Your task to perform on an android device: toggle show notifications on the lock screen Image 0: 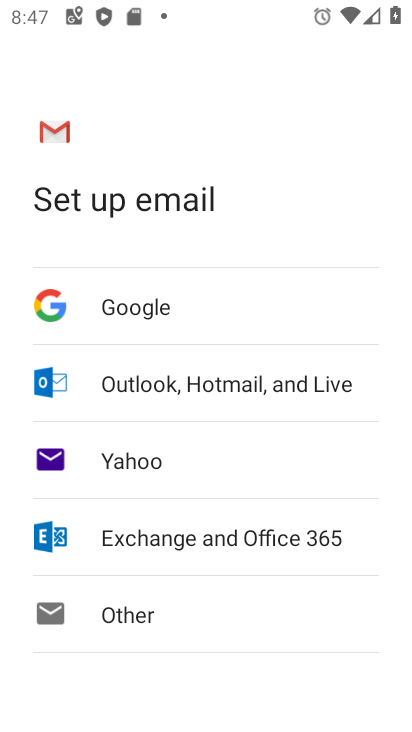
Step 0: press home button
Your task to perform on an android device: toggle show notifications on the lock screen Image 1: 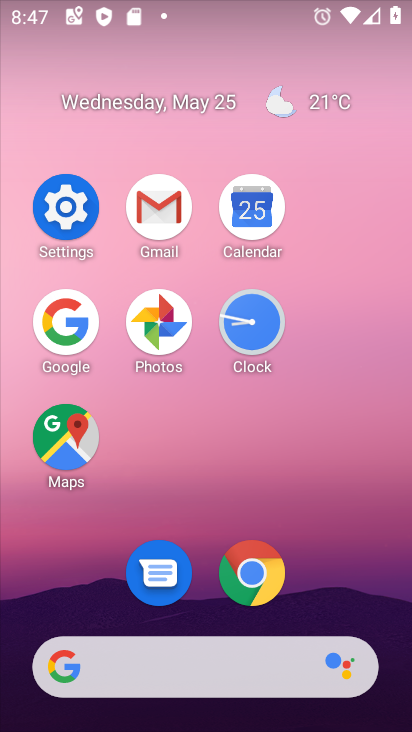
Step 1: click (88, 194)
Your task to perform on an android device: toggle show notifications on the lock screen Image 2: 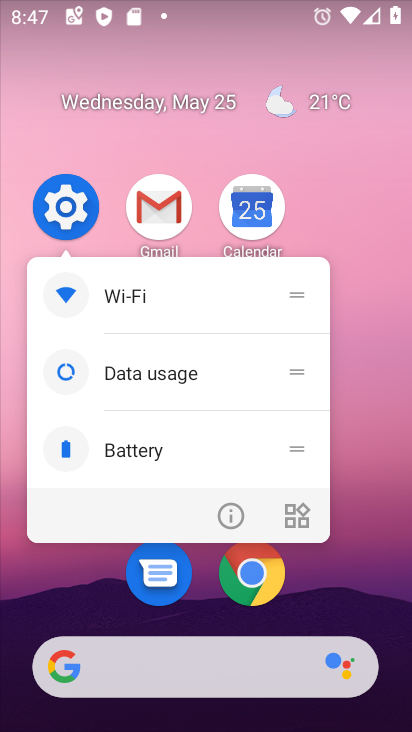
Step 2: click (75, 199)
Your task to perform on an android device: toggle show notifications on the lock screen Image 3: 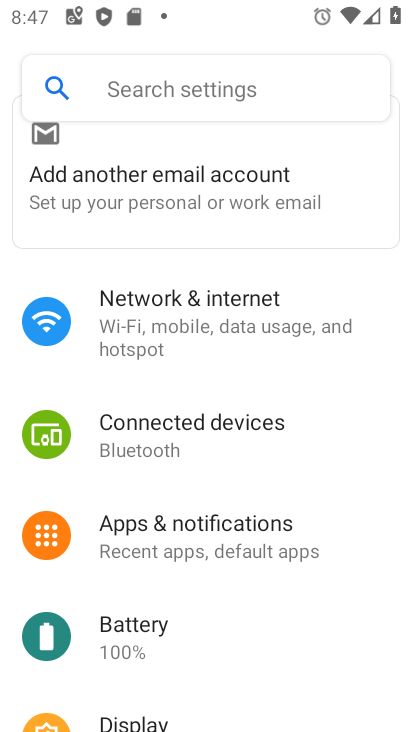
Step 3: click (229, 545)
Your task to perform on an android device: toggle show notifications on the lock screen Image 4: 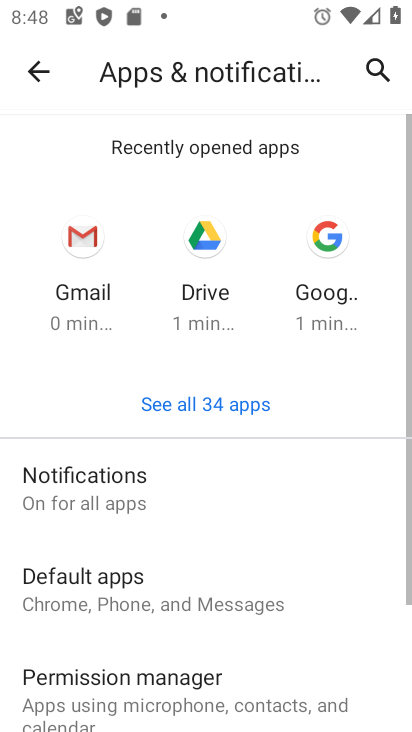
Step 4: click (175, 501)
Your task to perform on an android device: toggle show notifications on the lock screen Image 5: 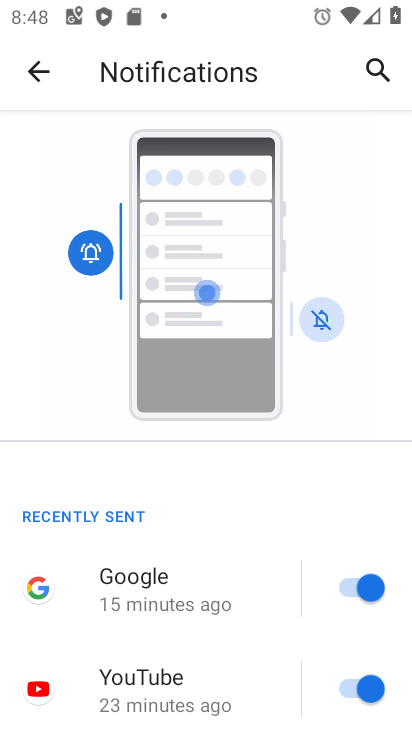
Step 5: drag from (191, 630) to (137, 200)
Your task to perform on an android device: toggle show notifications on the lock screen Image 6: 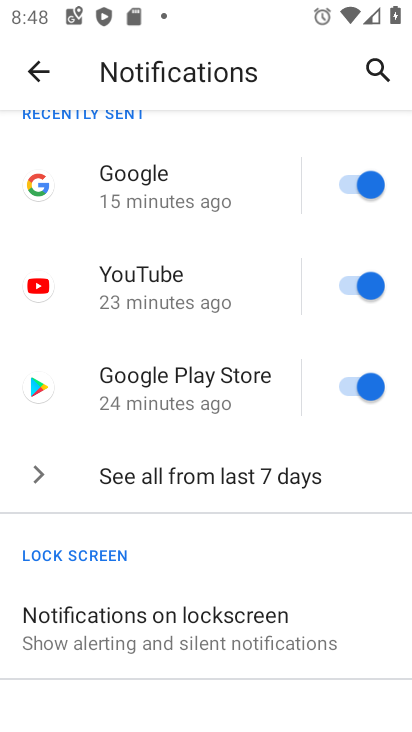
Step 6: click (202, 614)
Your task to perform on an android device: toggle show notifications on the lock screen Image 7: 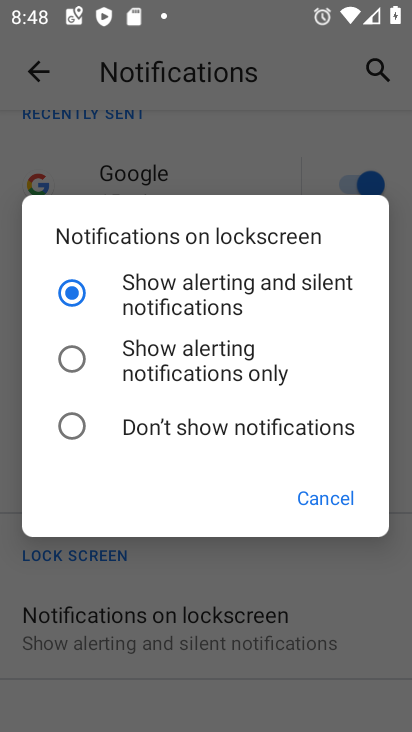
Step 7: click (146, 338)
Your task to perform on an android device: toggle show notifications on the lock screen Image 8: 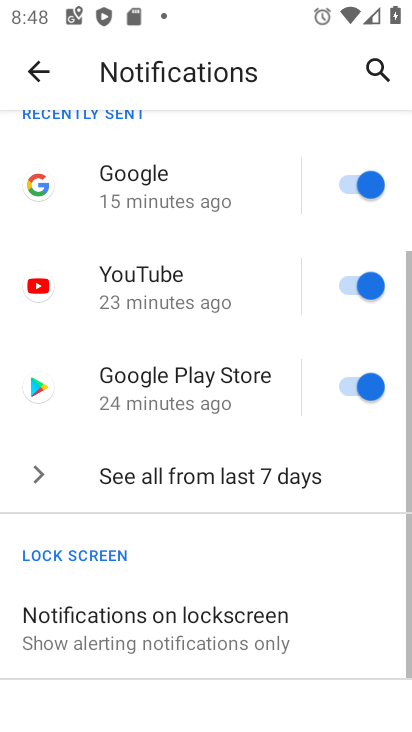
Step 8: task complete